Your task to perform on an android device: open app "Duolingo: language lessons" (install if not already installed) Image 0: 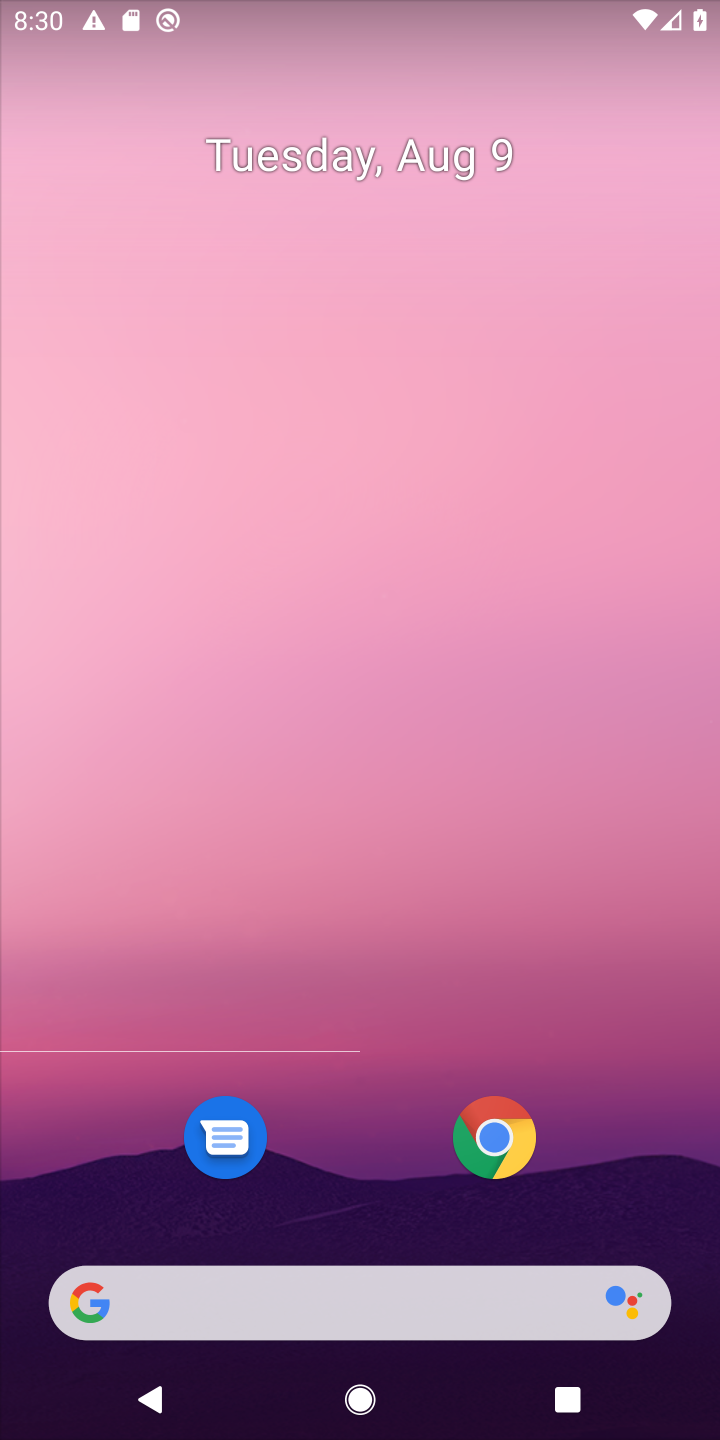
Step 0: press home button
Your task to perform on an android device: open app "Duolingo: language lessons" (install if not already installed) Image 1: 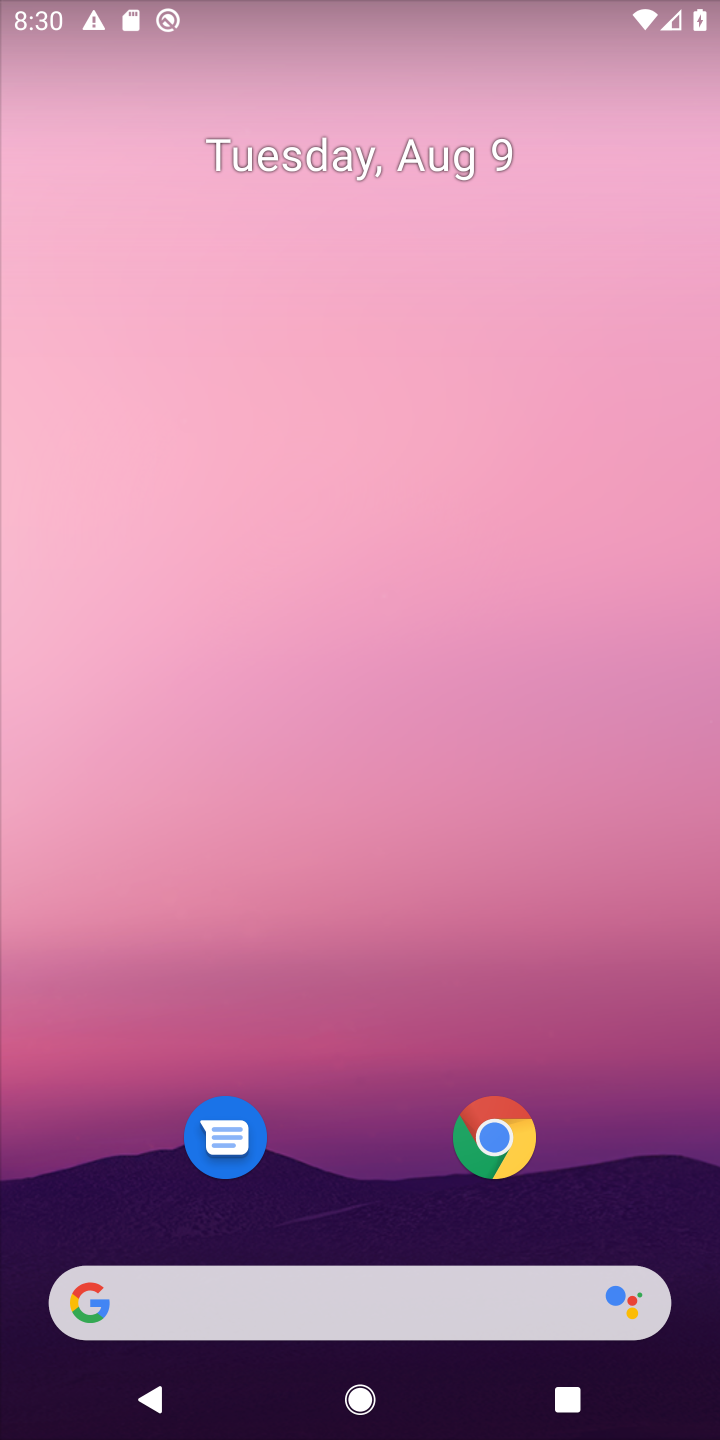
Step 1: drag from (629, 1180) to (625, 125)
Your task to perform on an android device: open app "Duolingo: language lessons" (install if not already installed) Image 2: 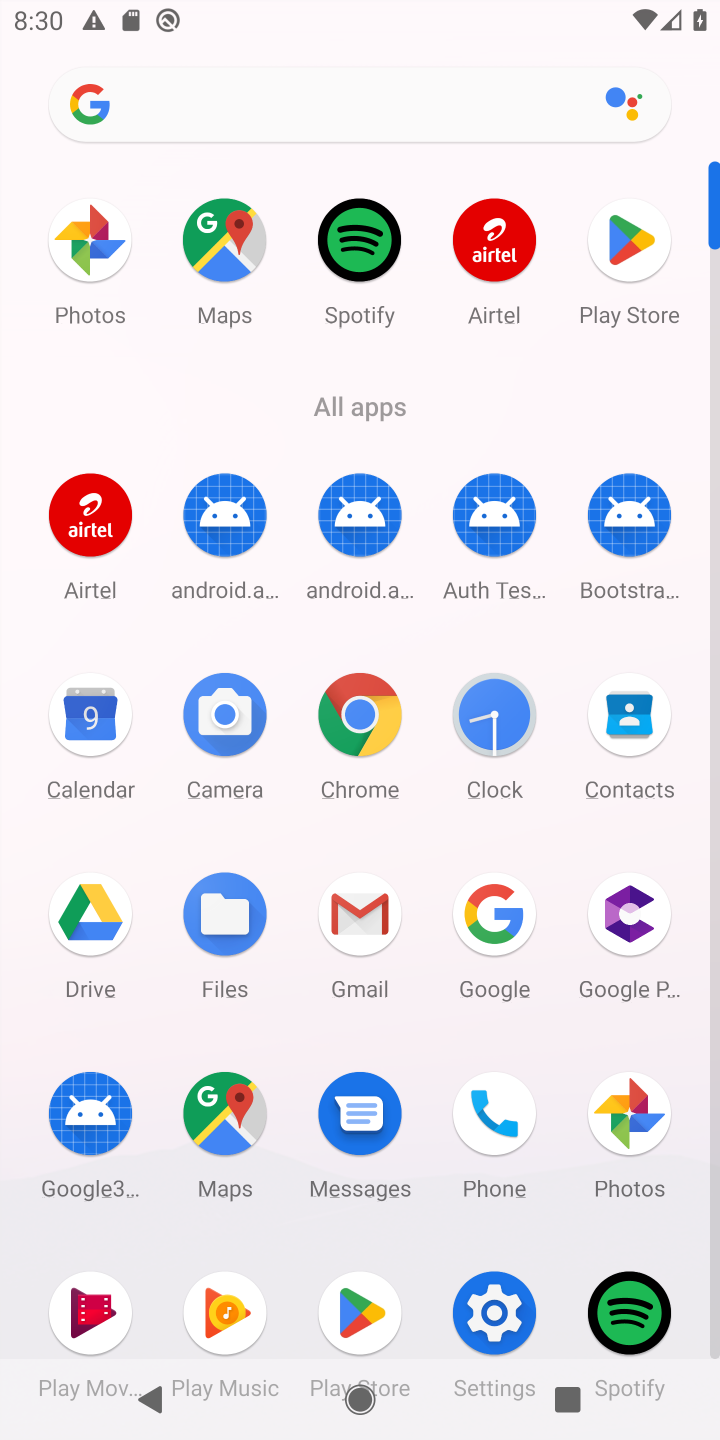
Step 2: click (637, 239)
Your task to perform on an android device: open app "Duolingo: language lessons" (install if not already installed) Image 3: 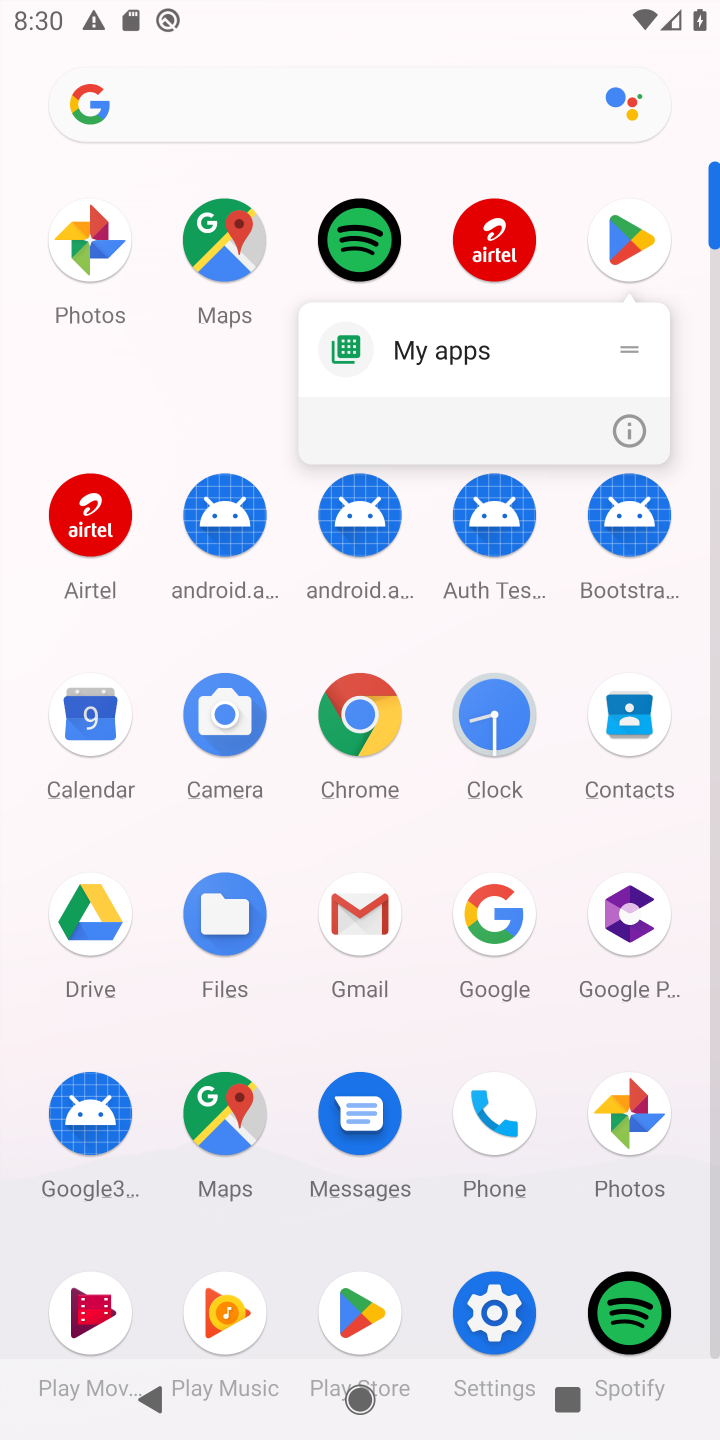
Step 3: click (637, 239)
Your task to perform on an android device: open app "Duolingo: language lessons" (install if not already installed) Image 4: 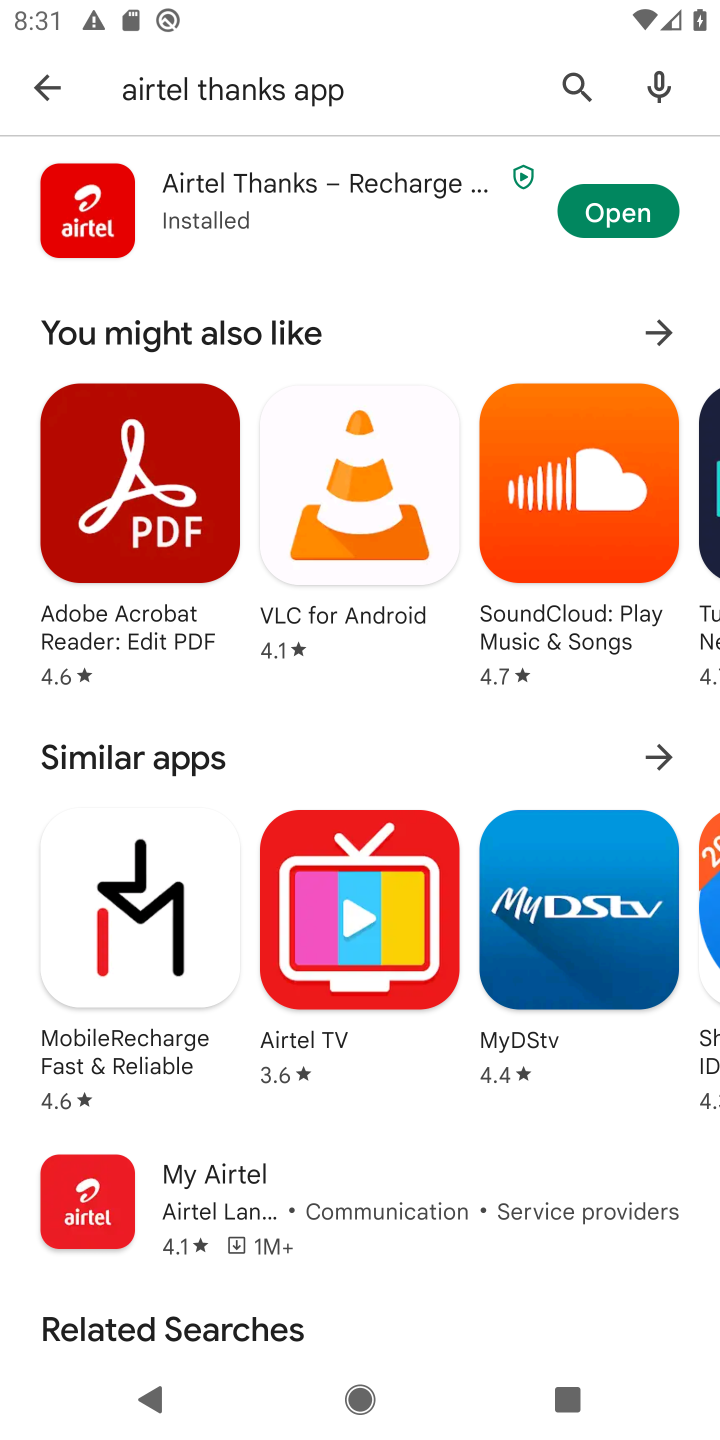
Step 4: click (568, 82)
Your task to perform on an android device: open app "Duolingo: language lessons" (install if not already installed) Image 5: 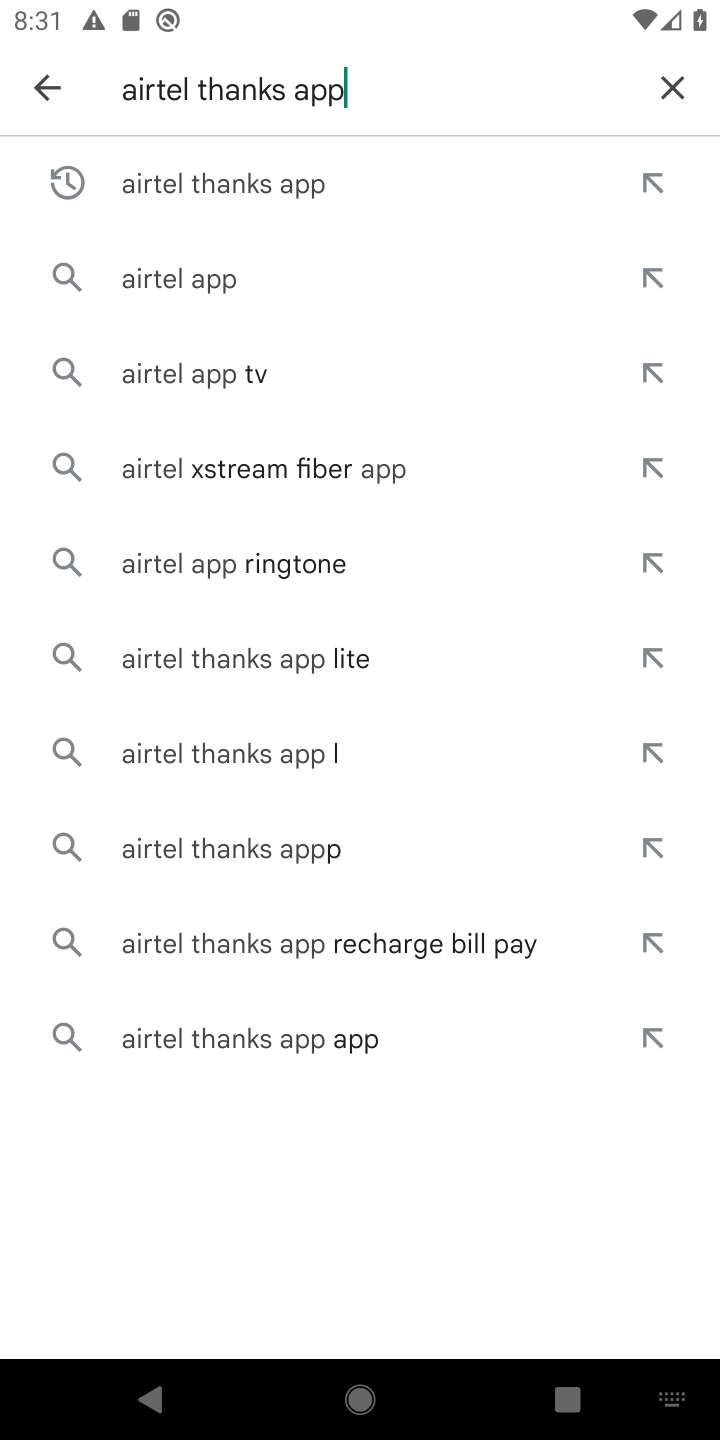
Step 5: click (679, 84)
Your task to perform on an android device: open app "Duolingo: language lessons" (install if not already installed) Image 6: 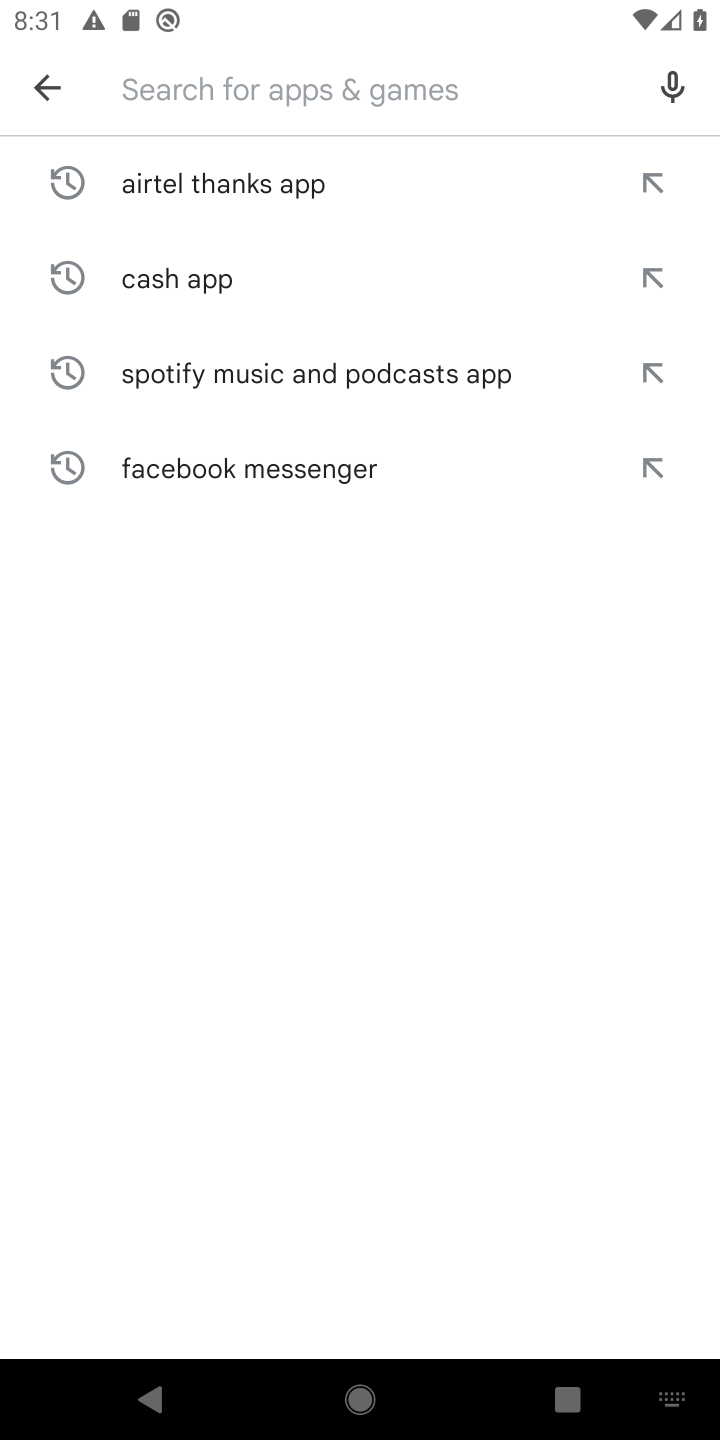
Step 6: type "Duolingo: language lessons"
Your task to perform on an android device: open app "Duolingo: language lessons" (install if not already installed) Image 7: 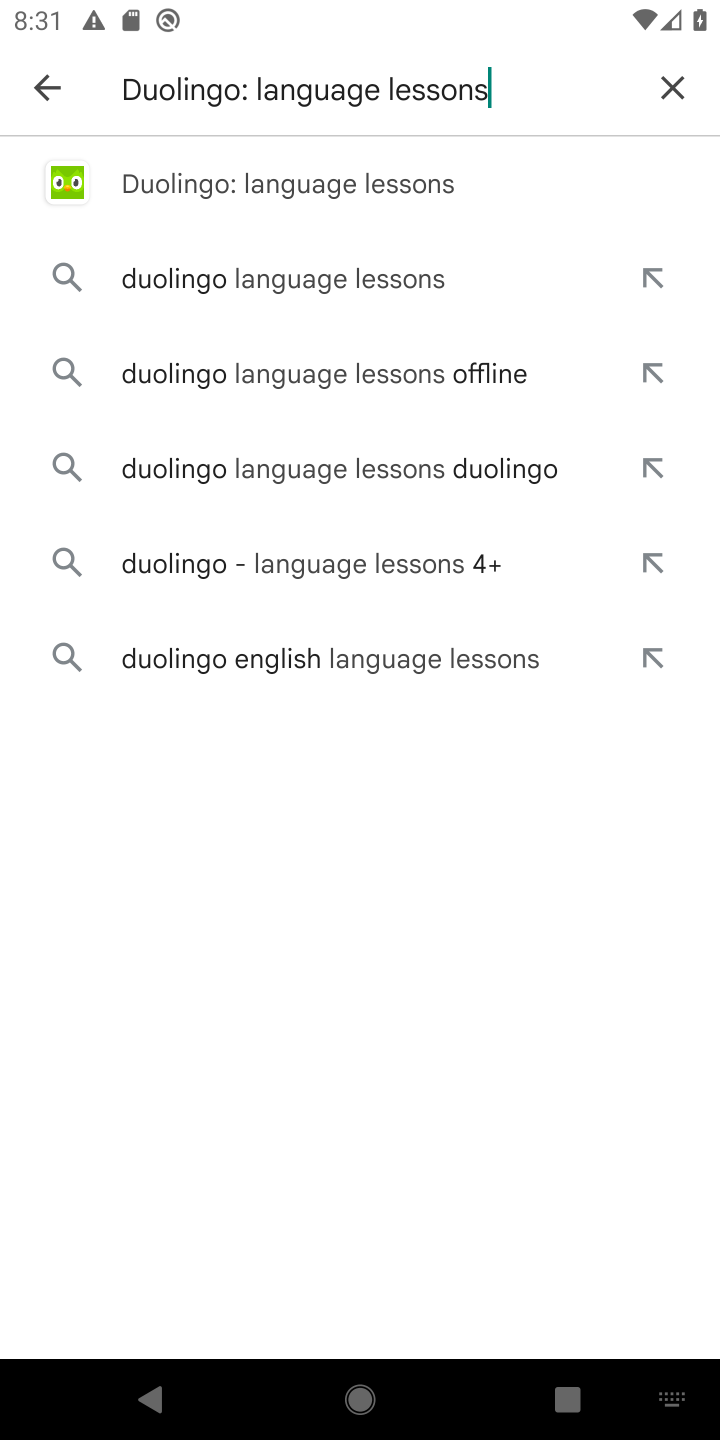
Step 7: click (417, 170)
Your task to perform on an android device: open app "Duolingo: language lessons" (install if not already installed) Image 8: 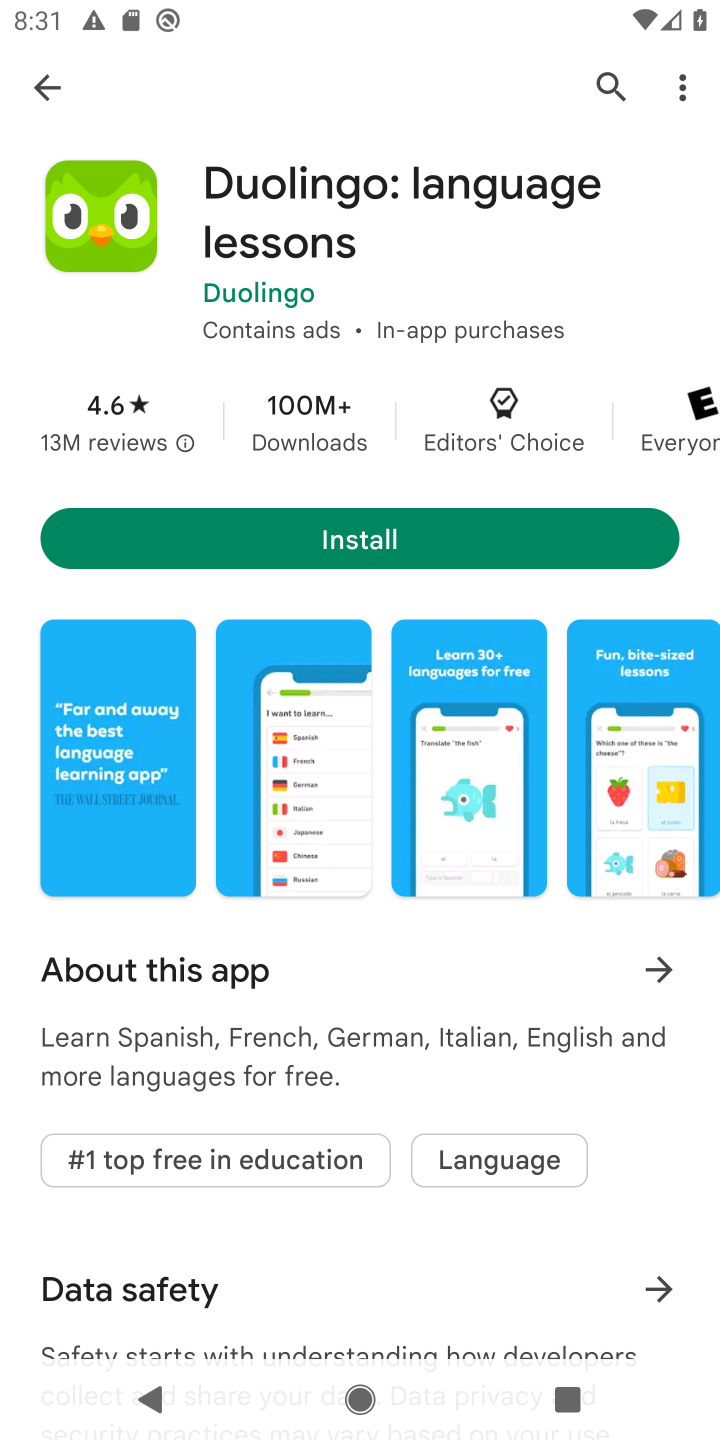
Step 8: click (533, 539)
Your task to perform on an android device: open app "Duolingo: language lessons" (install if not already installed) Image 9: 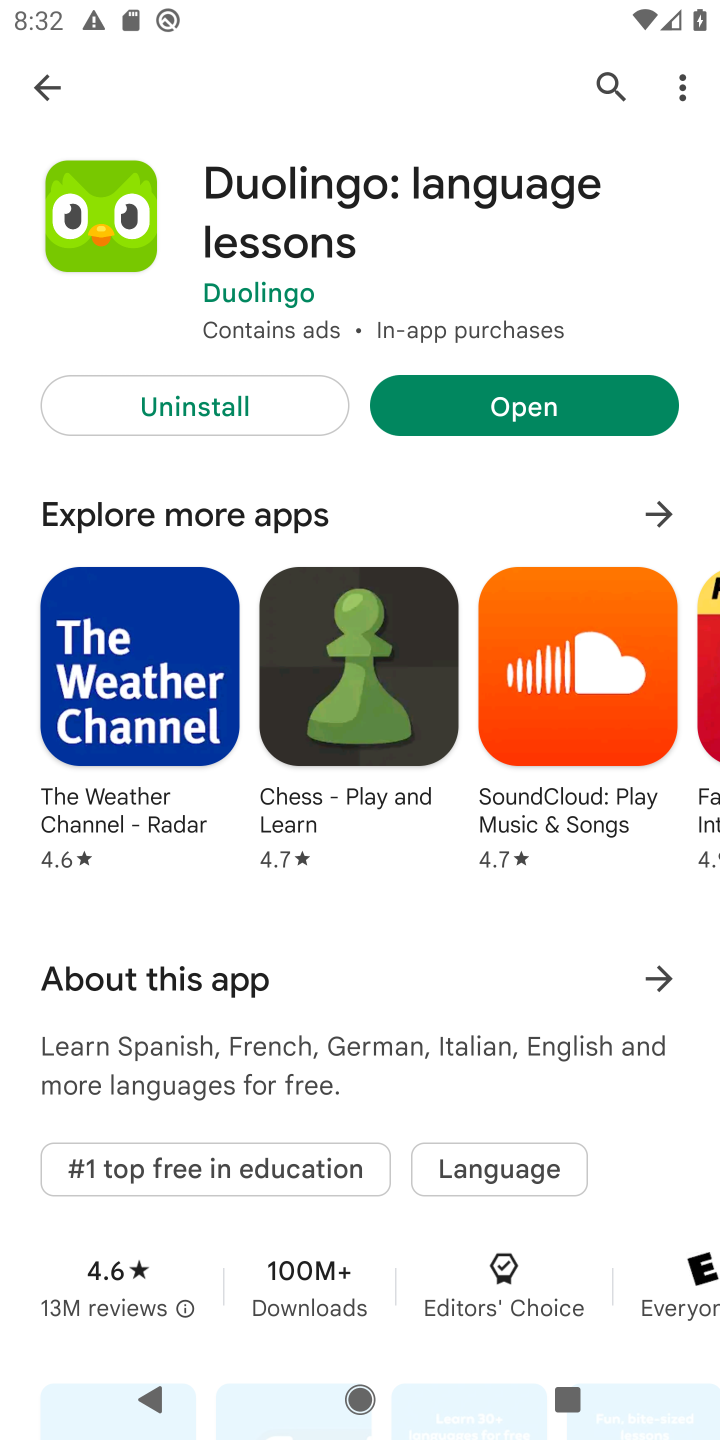
Step 9: click (607, 413)
Your task to perform on an android device: open app "Duolingo: language lessons" (install if not already installed) Image 10: 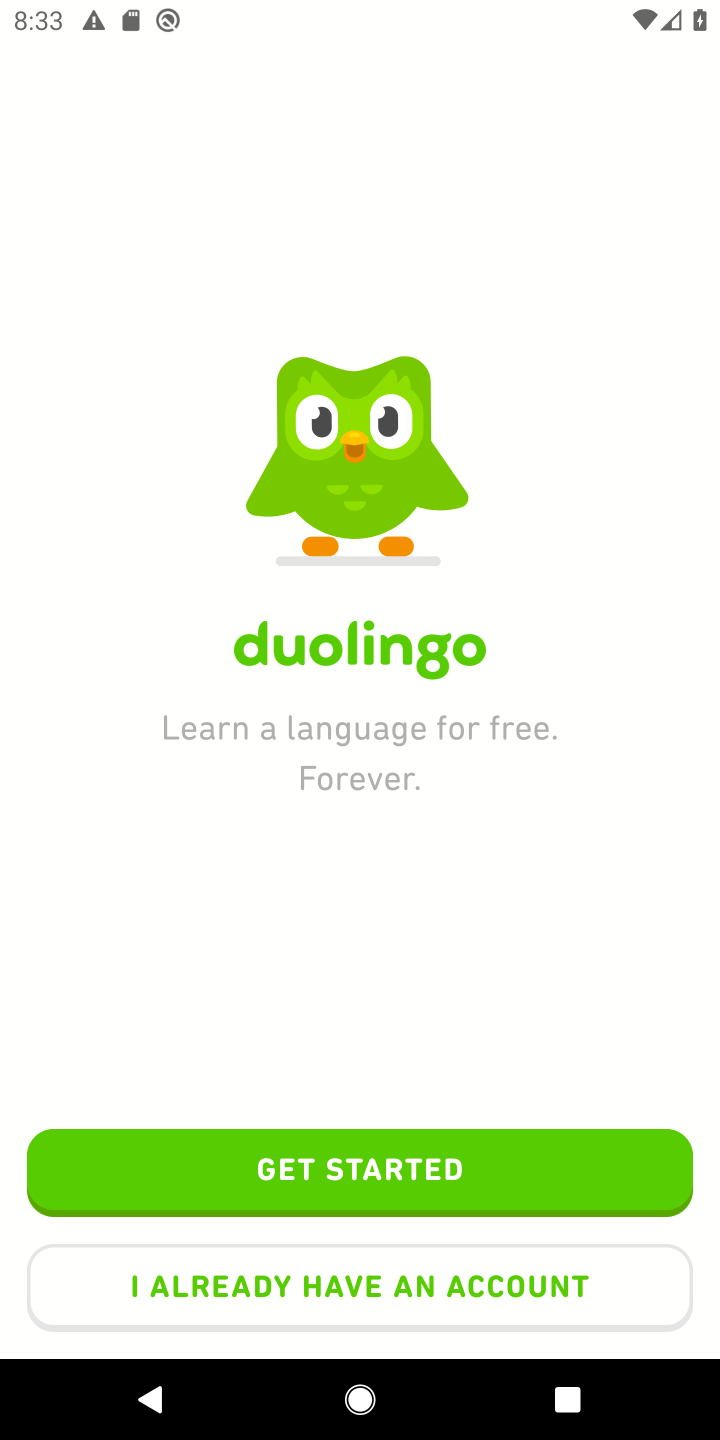
Step 10: task complete